Your task to perform on an android device: Open calendar and show me the third week of next month Image 0: 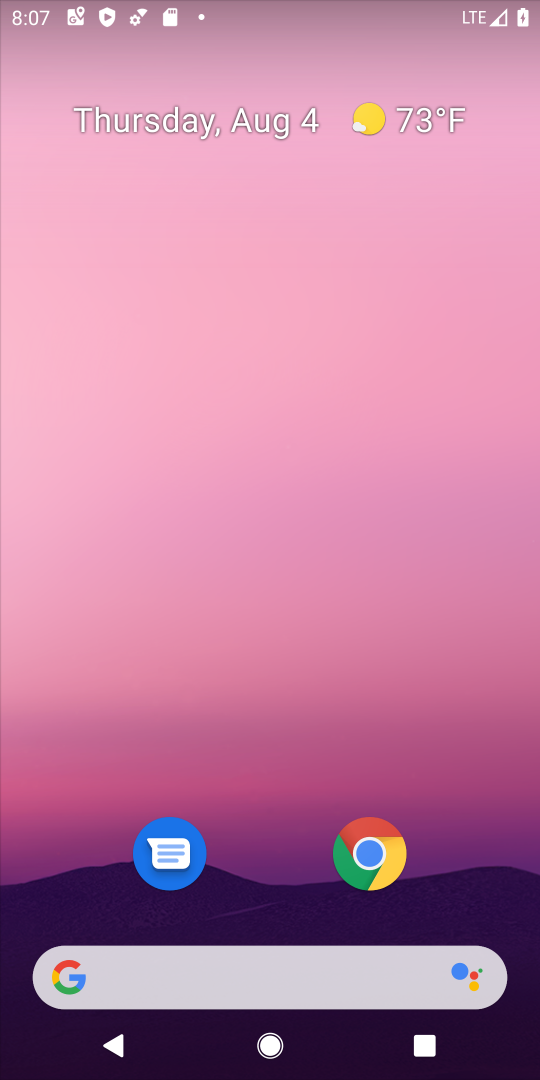
Step 0: press home button
Your task to perform on an android device: Open calendar and show me the third week of next month Image 1: 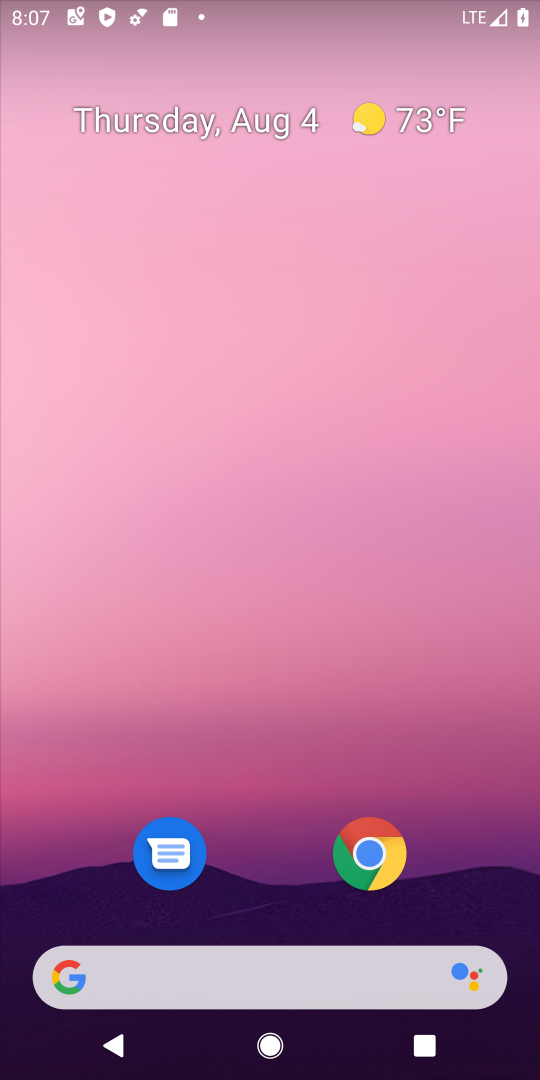
Step 1: drag from (232, 935) to (331, 269)
Your task to perform on an android device: Open calendar and show me the third week of next month Image 2: 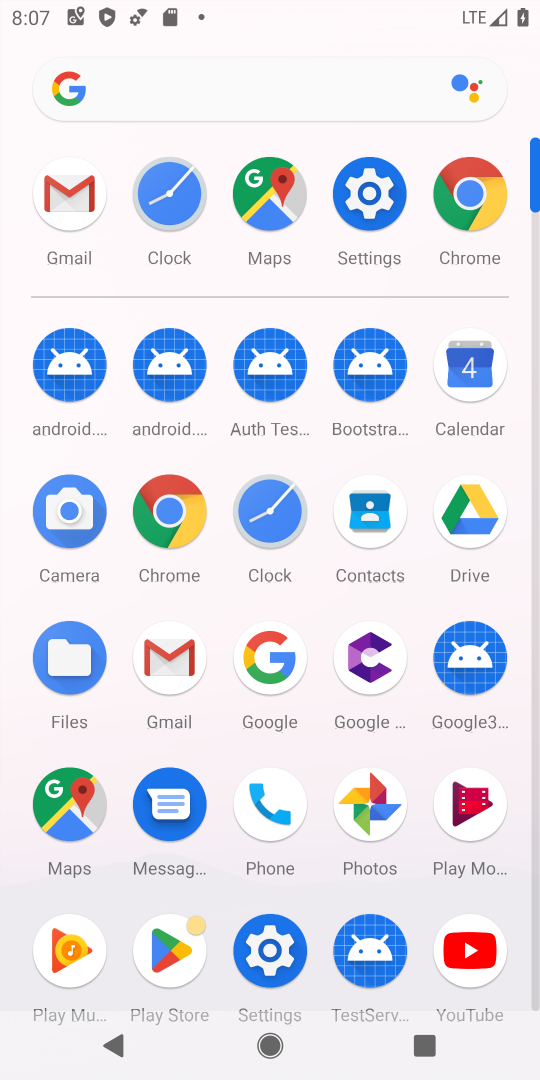
Step 2: click (477, 392)
Your task to perform on an android device: Open calendar and show me the third week of next month Image 3: 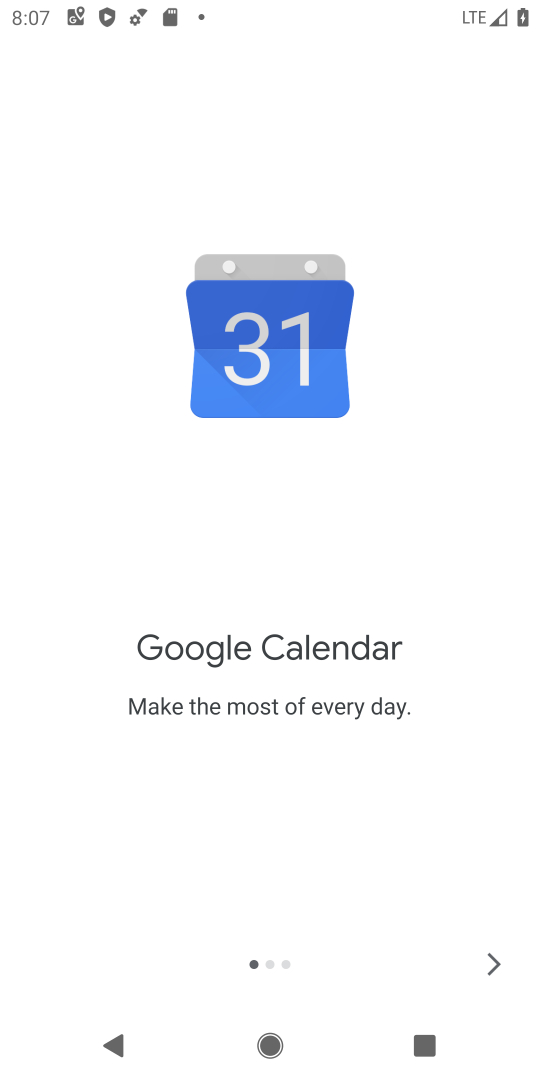
Step 3: click (487, 965)
Your task to perform on an android device: Open calendar and show me the third week of next month Image 4: 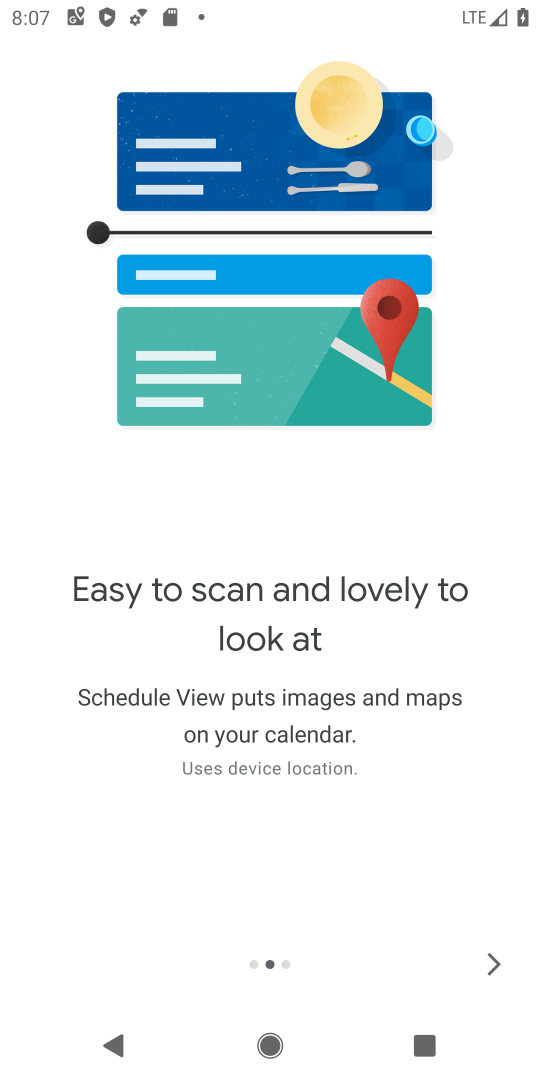
Step 4: click (487, 965)
Your task to perform on an android device: Open calendar and show me the third week of next month Image 5: 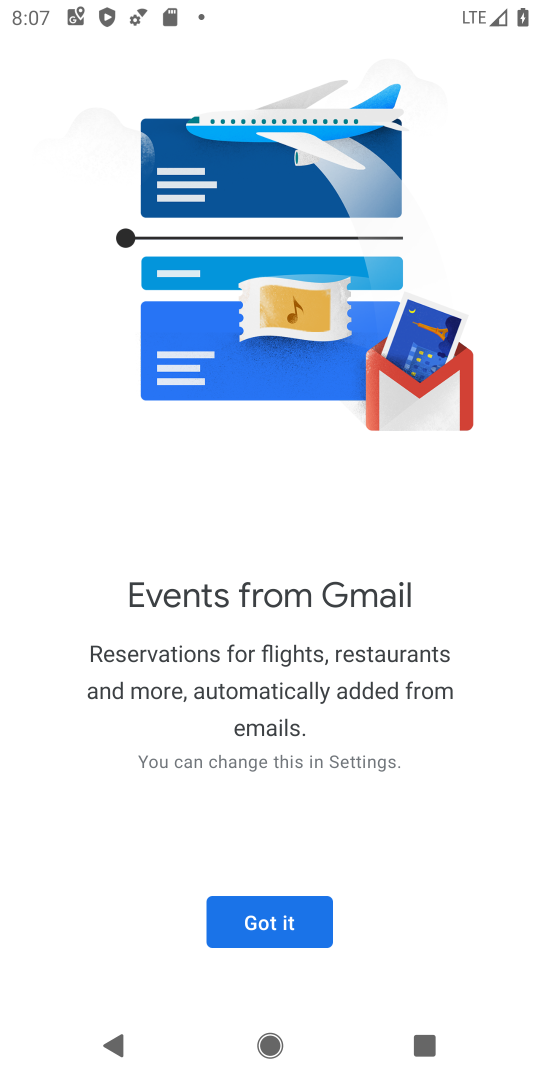
Step 5: click (290, 923)
Your task to perform on an android device: Open calendar and show me the third week of next month Image 6: 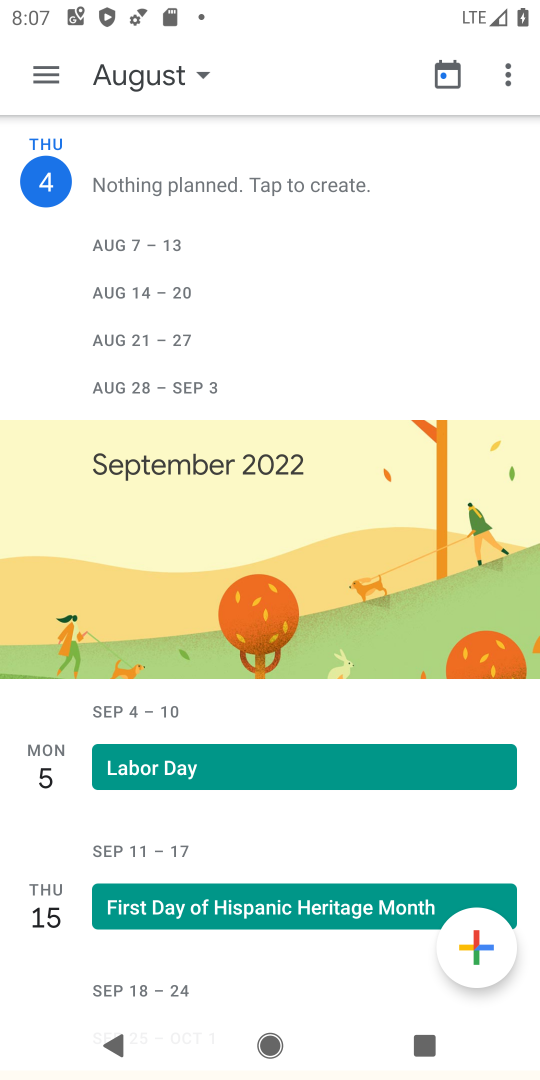
Step 6: click (159, 72)
Your task to perform on an android device: Open calendar and show me the third week of next month Image 7: 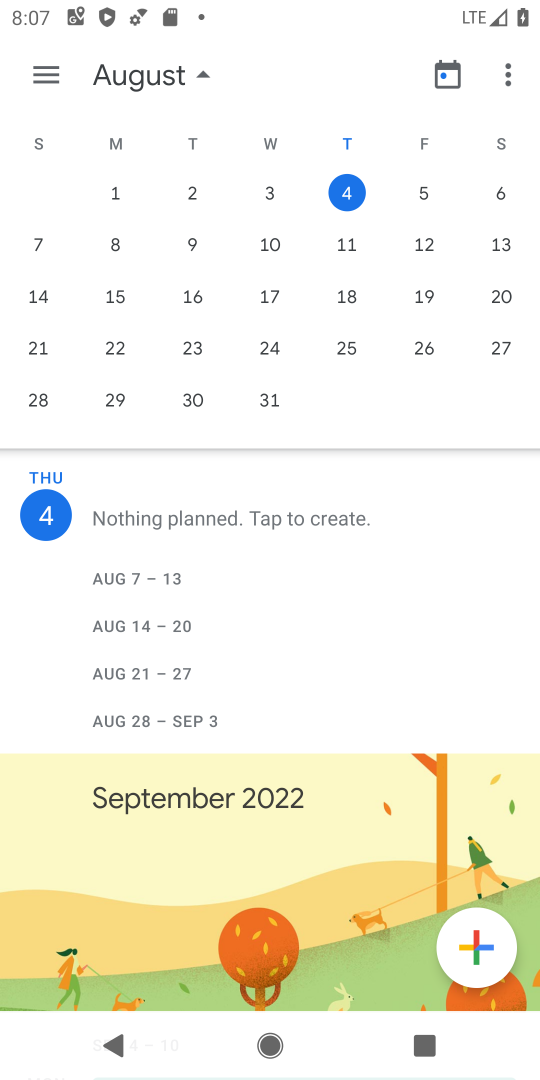
Step 7: drag from (161, 320) to (70, 333)
Your task to perform on an android device: Open calendar and show me the third week of next month Image 8: 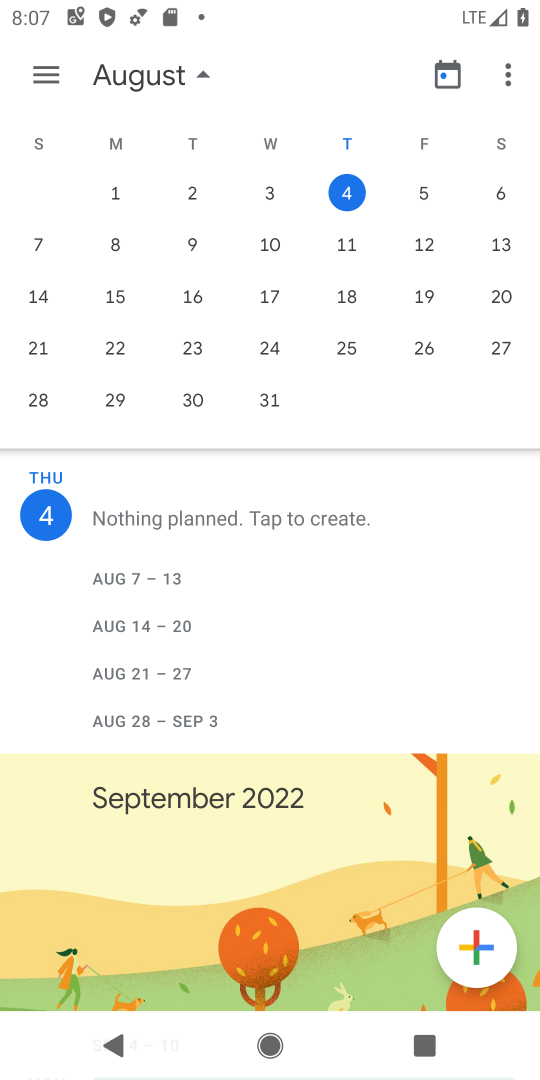
Step 8: click (31, 299)
Your task to perform on an android device: Open calendar and show me the third week of next month Image 9: 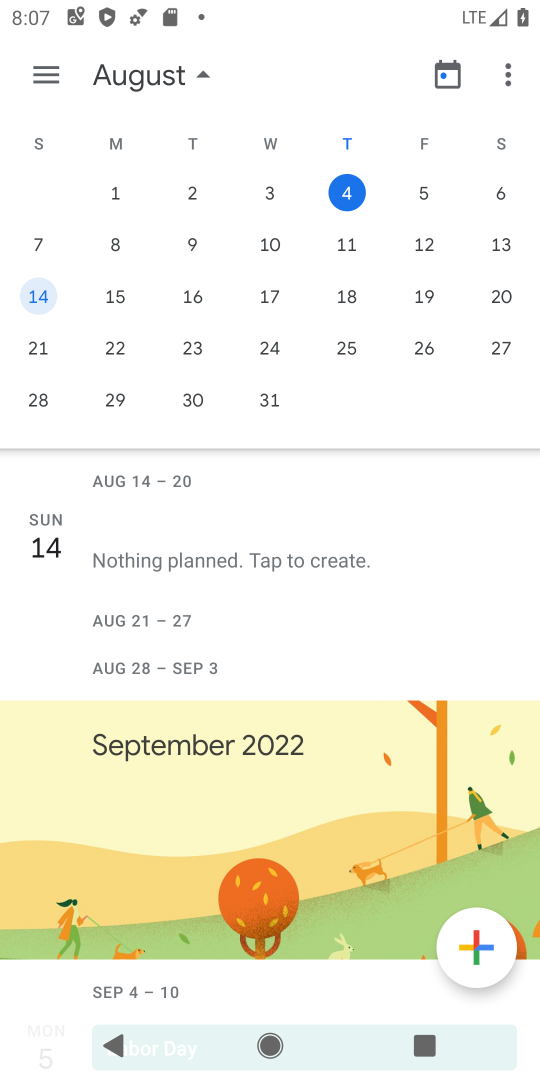
Step 9: task complete